Your task to perform on an android device: change the upload size in google photos Image 0: 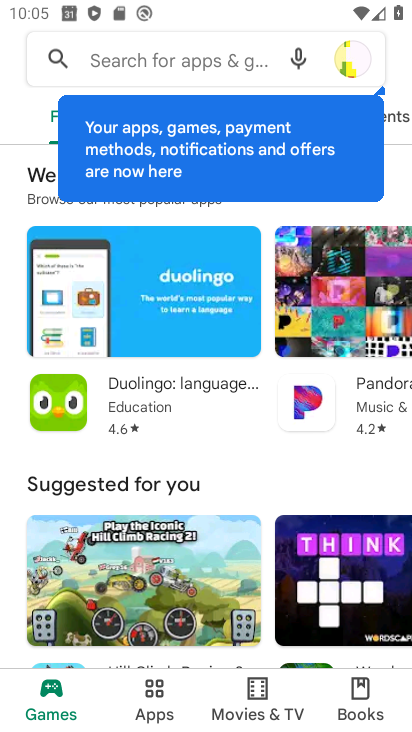
Step 0: press home button
Your task to perform on an android device: change the upload size in google photos Image 1: 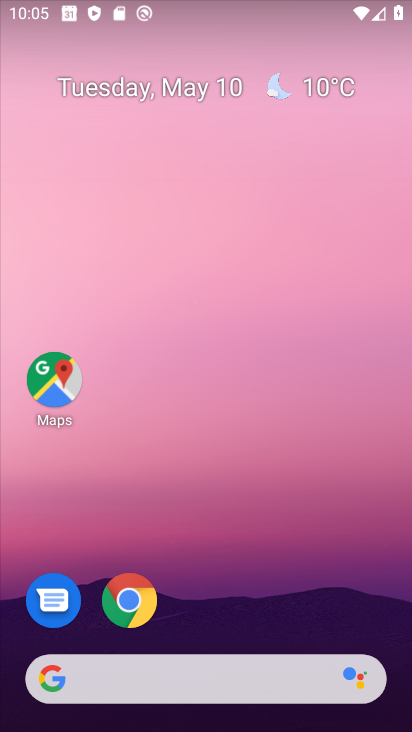
Step 1: drag from (337, 341) to (351, 193)
Your task to perform on an android device: change the upload size in google photos Image 2: 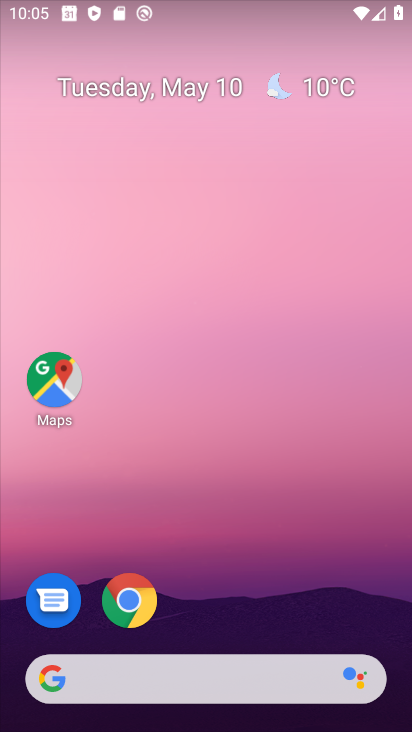
Step 2: drag from (294, 465) to (269, 182)
Your task to perform on an android device: change the upload size in google photos Image 3: 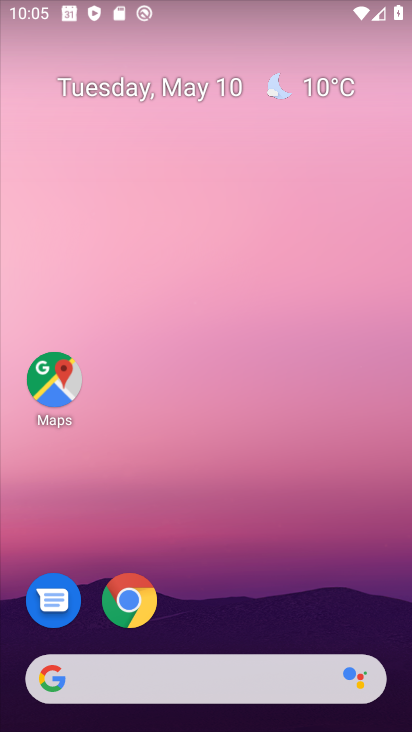
Step 3: drag from (279, 574) to (270, 154)
Your task to perform on an android device: change the upload size in google photos Image 4: 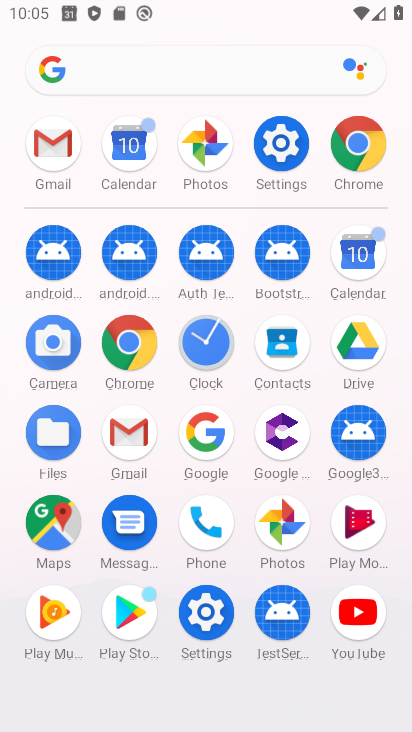
Step 4: click (289, 527)
Your task to perform on an android device: change the upload size in google photos Image 5: 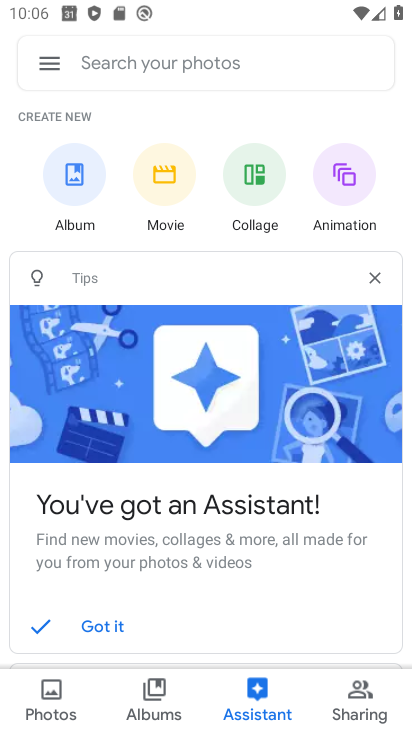
Step 5: press home button
Your task to perform on an android device: change the upload size in google photos Image 6: 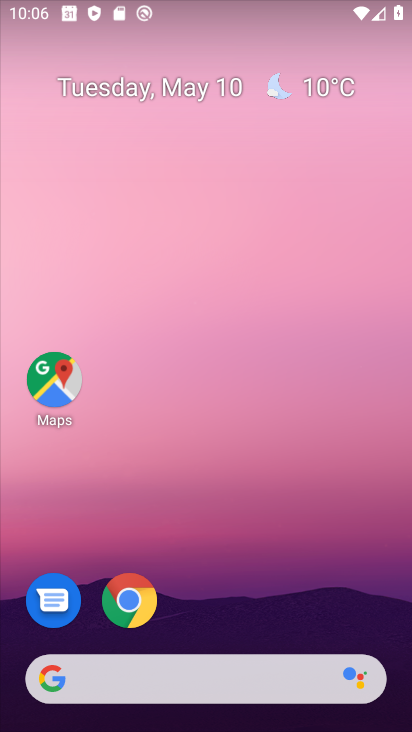
Step 6: drag from (318, 536) to (259, 64)
Your task to perform on an android device: change the upload size in google photos Image 7: 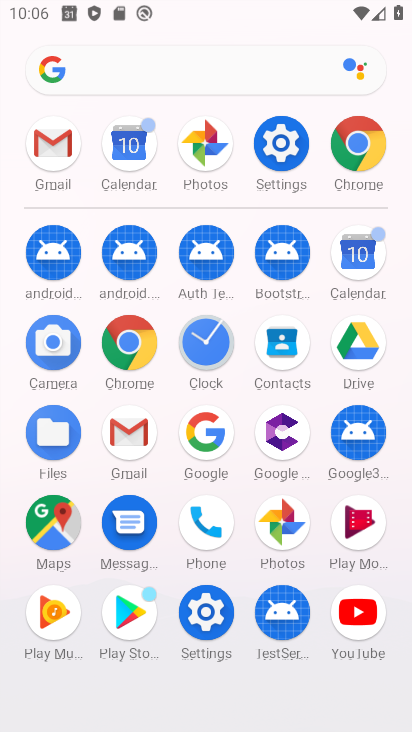
Step 7: click (207, 145)
Your task to perform on an android device: change the upload size in google photos Image 8: 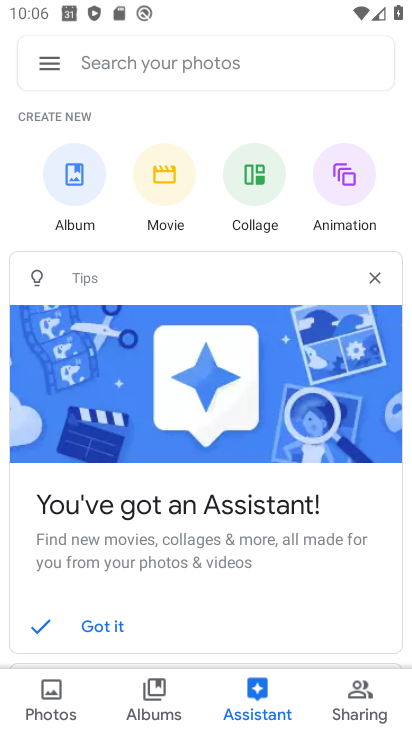
Step 8: click (38, 64)
Your task to perform on an android device: change the upload size in google photos Image 9: 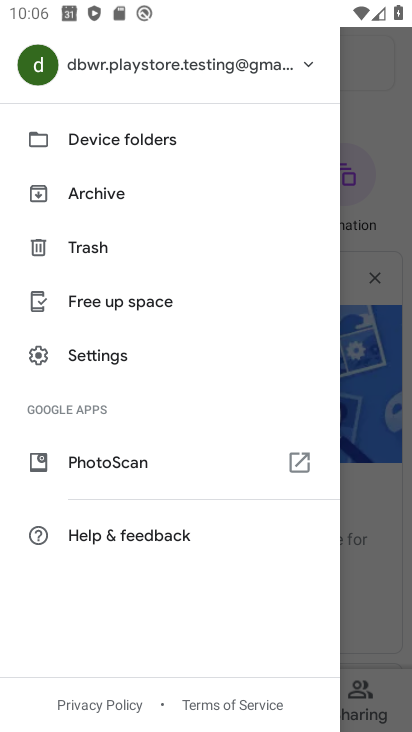
Step 9: click (116, 369)
Your task to perform on an android device: change the upload size in google photos Image 10: 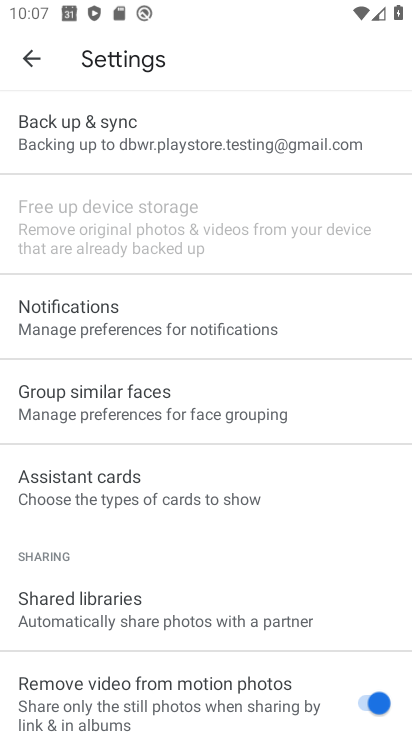
Step 10: click (107, 136)
Your task to perform on an android device: change the upload size in google photos Image 11: 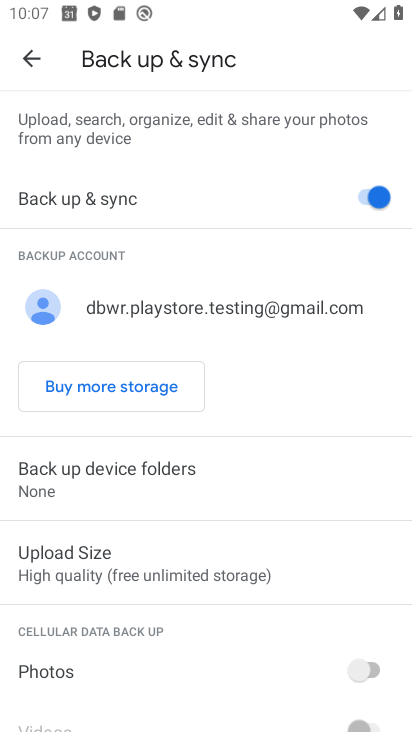
Step 11: click (134, 551)
Your task to perform on an android device: change the upload size in google photos Image 12: 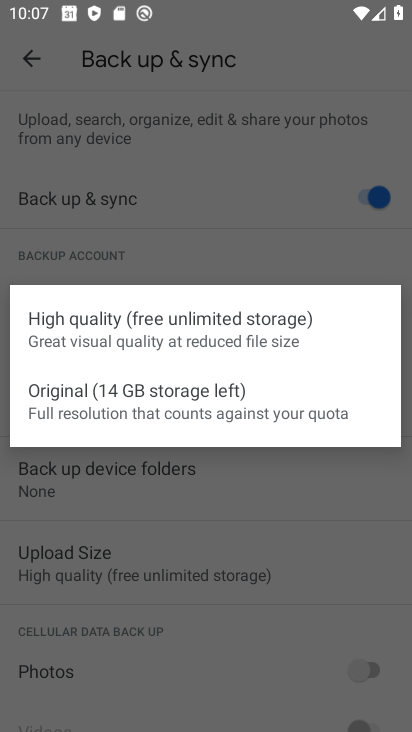
Step 12: click (113, 424)
Your task to perform on an android device: change the upload size in google photos Image 13: 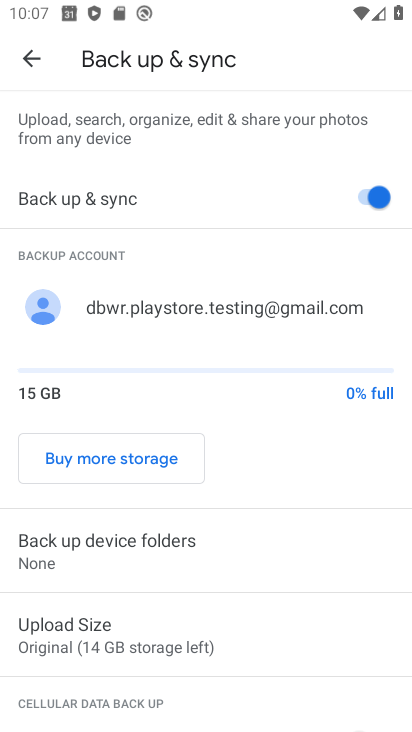
Step 13: task complete